Your task to perform on an android device: Go to Google maps Image 0: 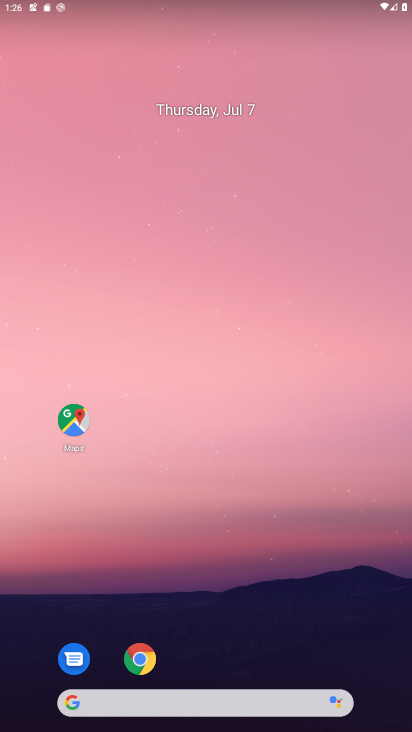
Step 0: drag from (204, 658) to (302, 37)
Your task to perform on an android device: Go to Google maps Image 1: 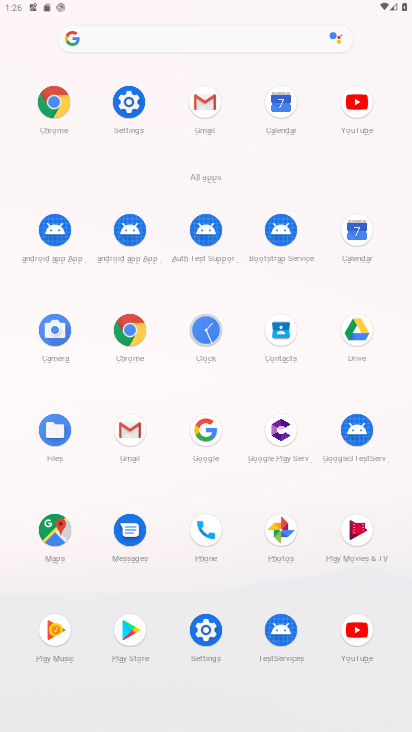
Step 1: click (58, 537)
Your task to perform on an android device: Go to Google maps Image 2: 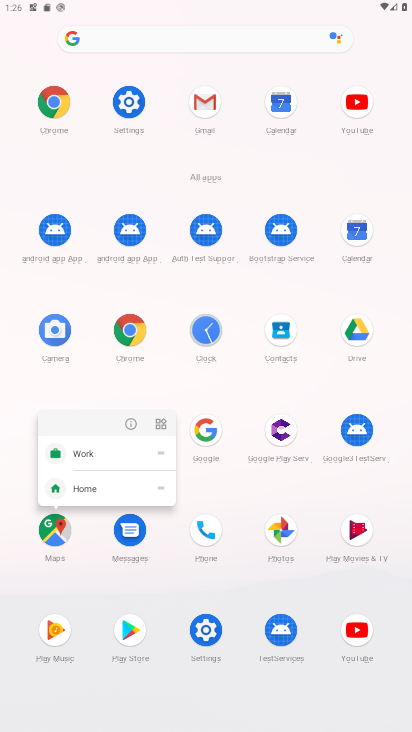
Step 2: click (133, 422)
Your task to perform on an android device: Go to Google maps Image 3: 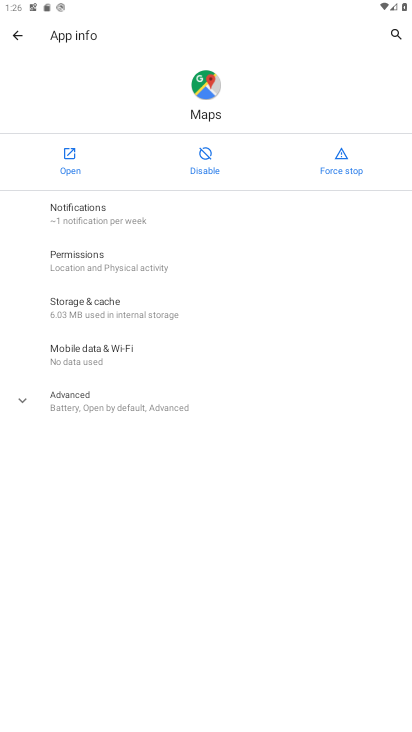
Step 3: click (67, 146)
Your task to perform on an android device: Go to Google maps Image 4: 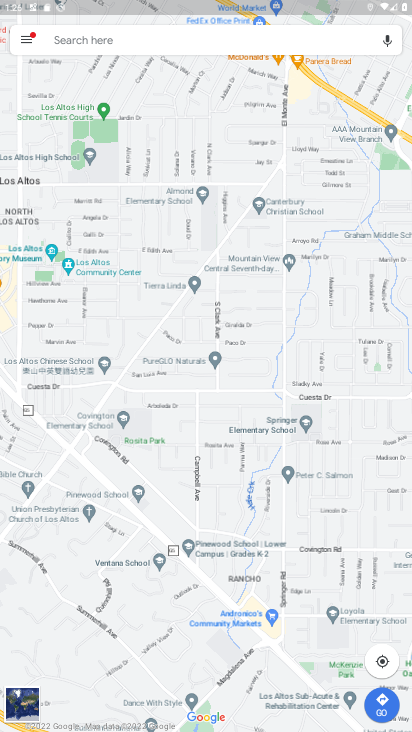
Step 4: task complete